Your task to perform on an android device: Open Google Maps and go to "Timeline" Image 0: 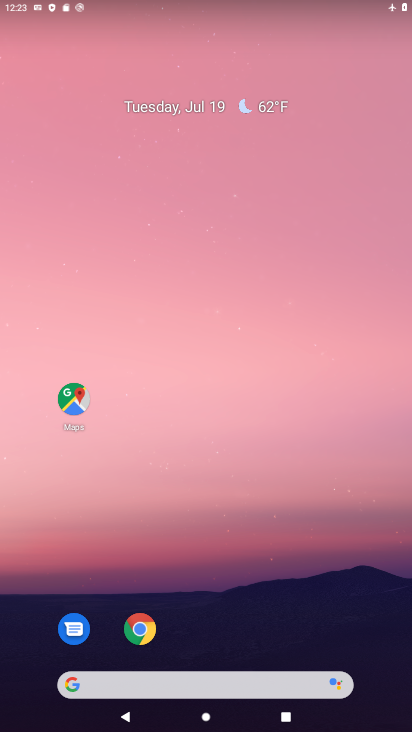
Step 0: drag from (238, 660) to (237, 87)
Your task to perform on an android device: Open Google Maps and go to "Timeline" Image 1: 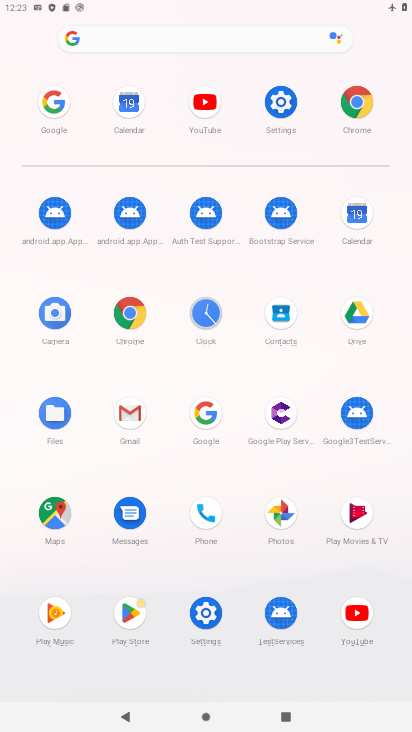
Step 1: click (59, 511)
Your task to perform on an android device: Open Google Maps and go to "Timeline" Image 2: 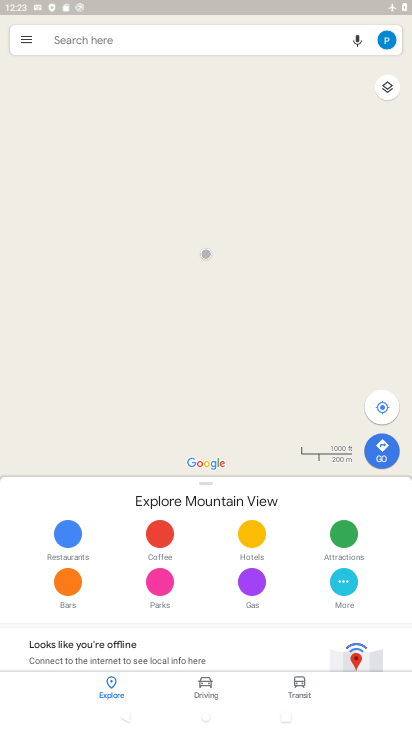
Step 2: click (24, 39)
Your task to perform on an android device: Open Google Maps and go to "Timeline" Image 3: 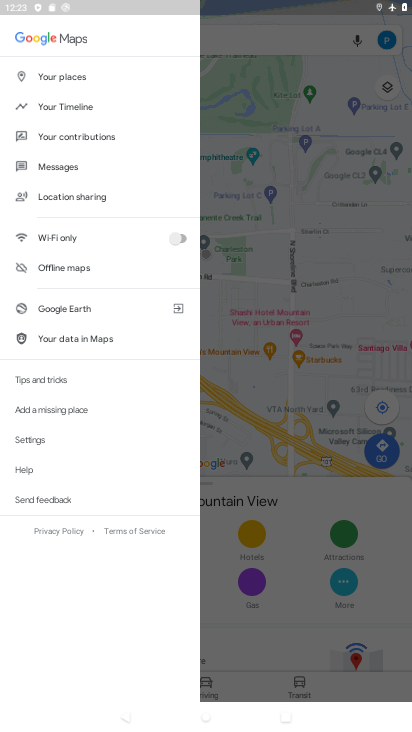
Step 3: click (67, 110)
Your task to perform on an android device: Open Google Maps and go to "Timeline" Image 4: 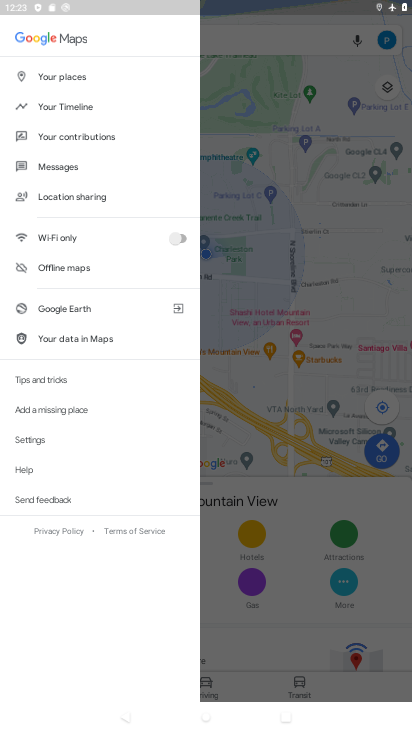
Step 4: click (66, 104)
Your task to perform on an android device: Open Google Maps and go to "Timeline" Image 5: 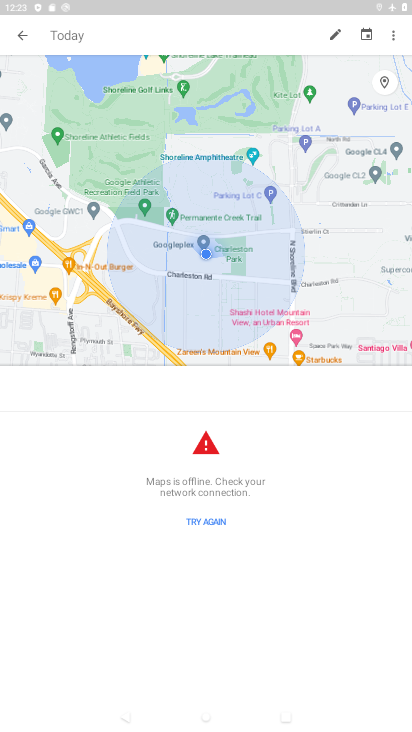
Step 5: task complete